Your task to perform on an android device: turn notification dots on Image 0: 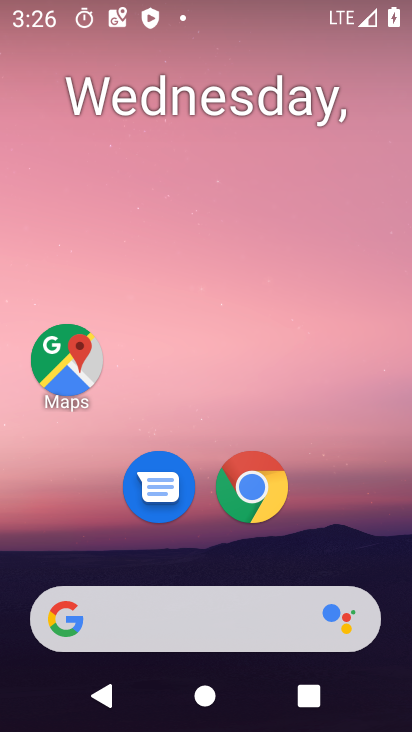
Step 0: drag from (218, 538) to (210, 36)
Your task to perform on an android device: turn notification dots on Image 1: 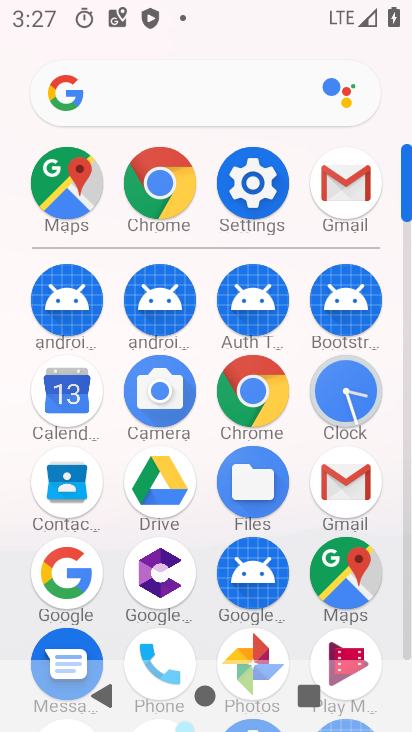
Step 1: click (262, 190)
Your task to perform on an android device: turn notification dots on Image 2: 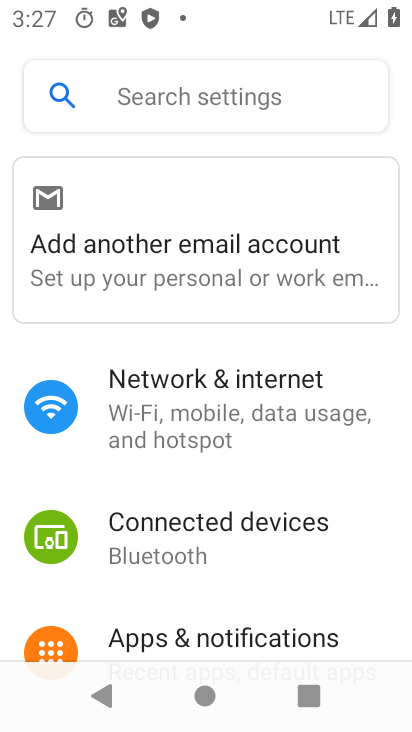
Step 2: drag from (247, 566) to (236, 222)
Your task to perform on an android device: turn notification dots on Image 3: 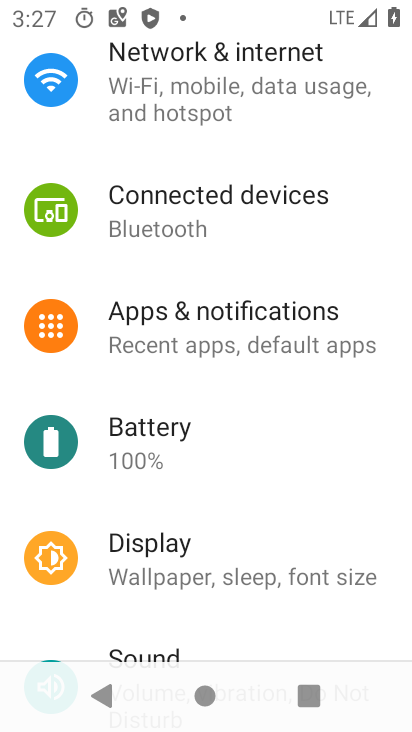
Step 3: drag from (237, 545) to (256, 324)
Your task to perform on an android device: turn notification dots on Image 4: 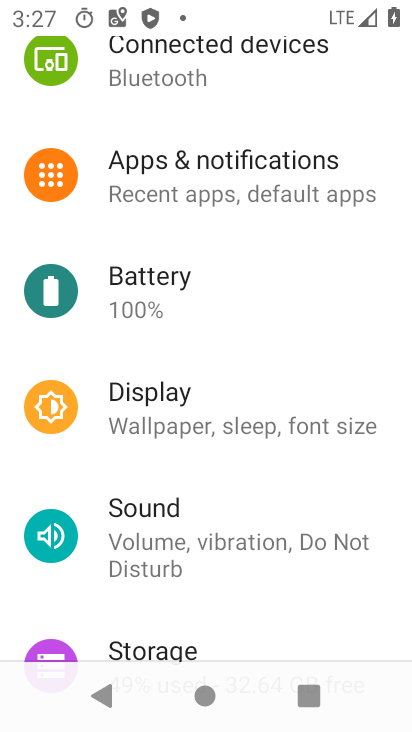
Step 4: click (253, 181)
Your task to perform on an android device: turn notification dots on Image 5: 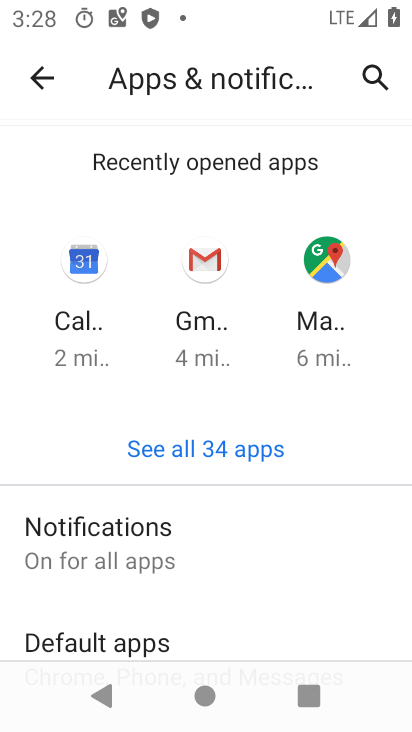
Step 5: click (127, 529)
Your task to perform on an android device: turn notification dots on Image 6: 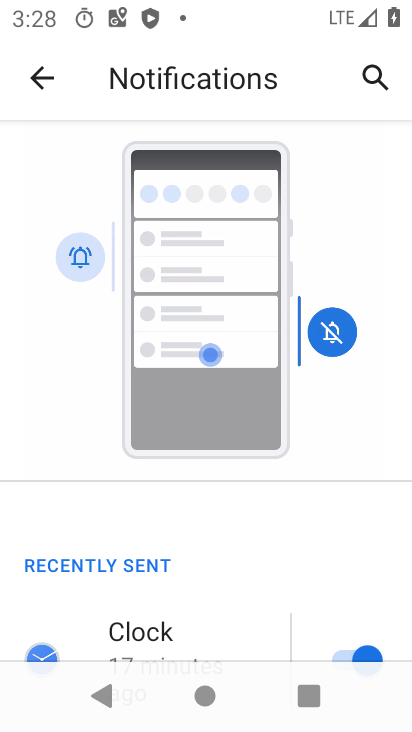
Step 6: drag from (227, 585) to (218, 50)
Your task to perform on an android device: turn notification dots on Image 7: 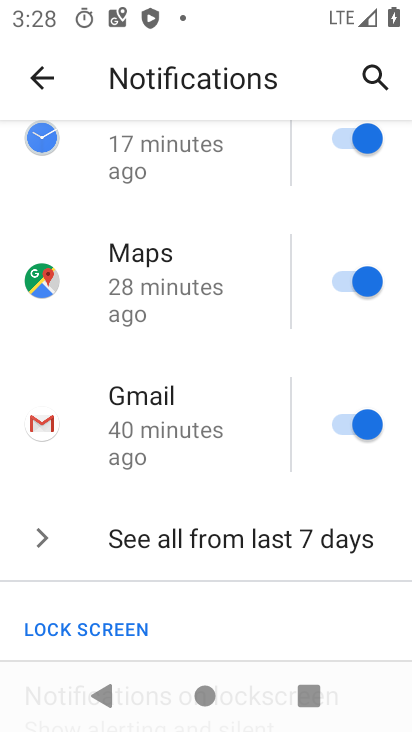
Step 7: drag from (193, 539) to (178, 245)
Your task to perform on an android device: turn notification dots on Image 8: 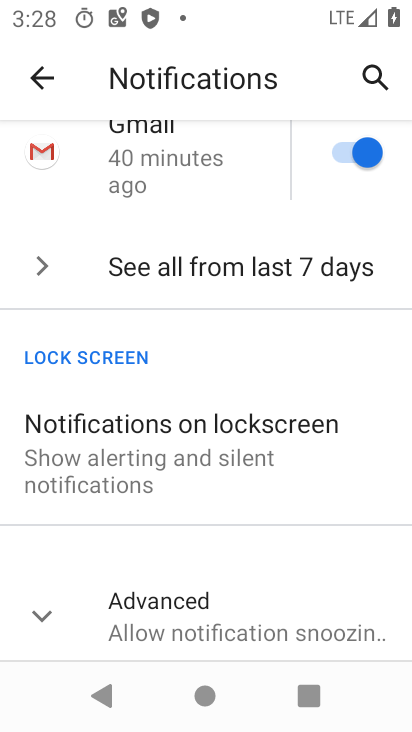
Step 8: click (219, 610)
Your task to perform on an android device: turn notification dots on Image 9: 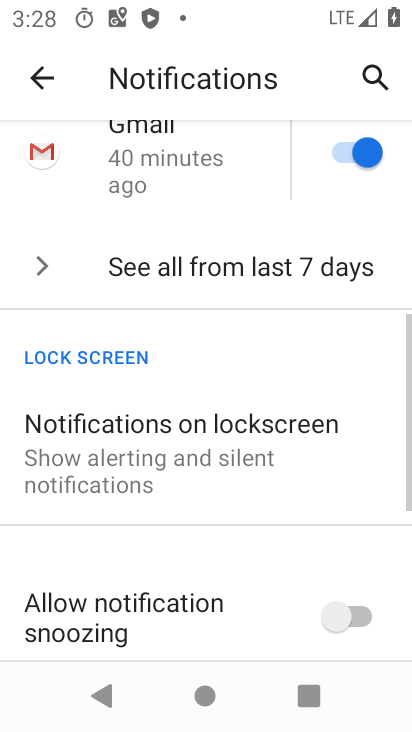
Step 9: task complete